Your task to perform on an android device: turn notification dots off Image 0: 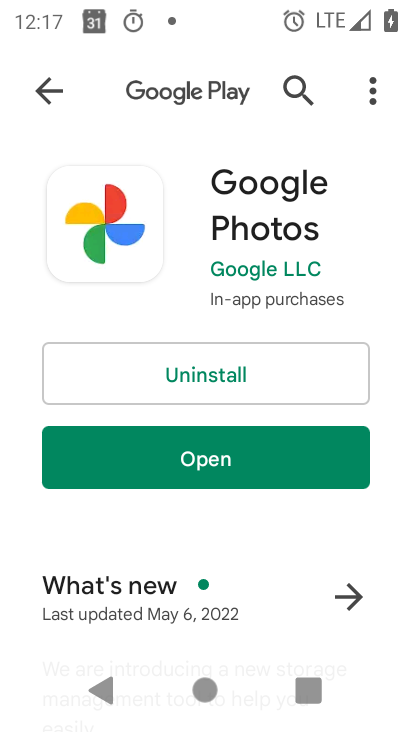
Step 0: press home button
Your task to perform on an android device: turn notification dots off Image 1: 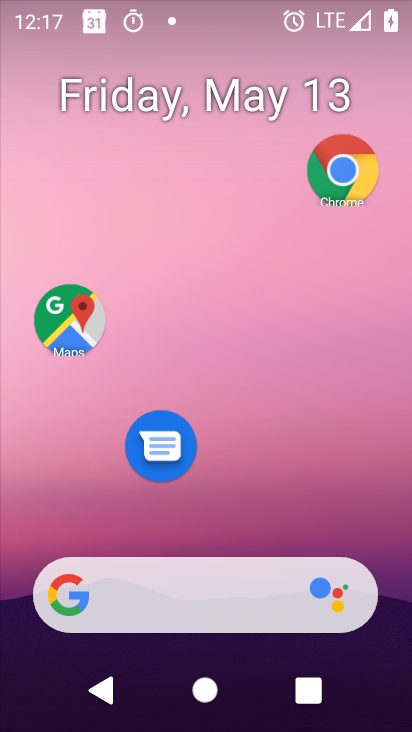
Step 1: drag from (236, 580) to (237, 5)
Your task to perform on an android device: turn notification dots off Image 2: 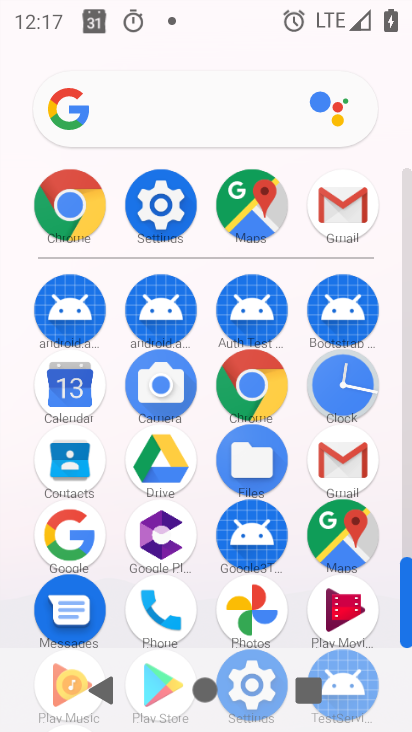
Step 2: click (129, 208)
Your task to perform on an android device: turn notification dots off Image 3: 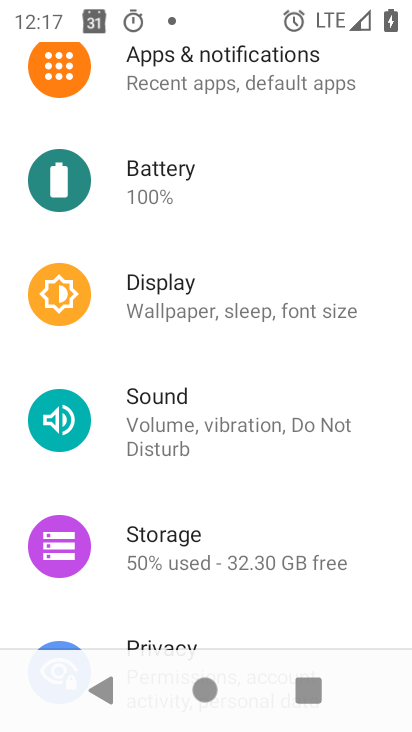
Step 3: drag from (255, 196) to (282, 473)
Your task to perform on an android device: turn notification dots off Image 4: 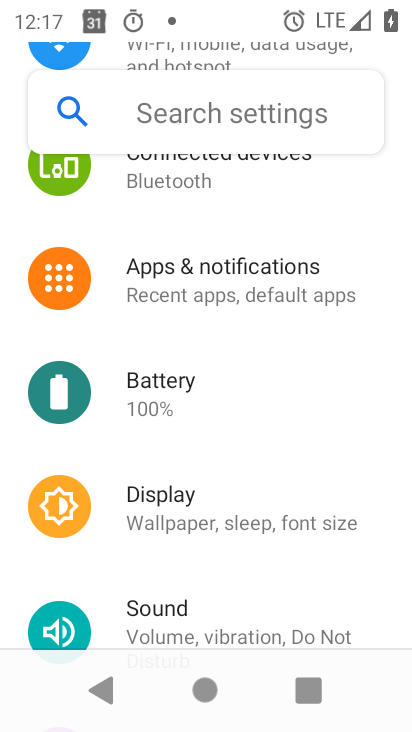
Step 4: click (251, 270)
Your task to perform on an android device: turn notification dots off Image 5: 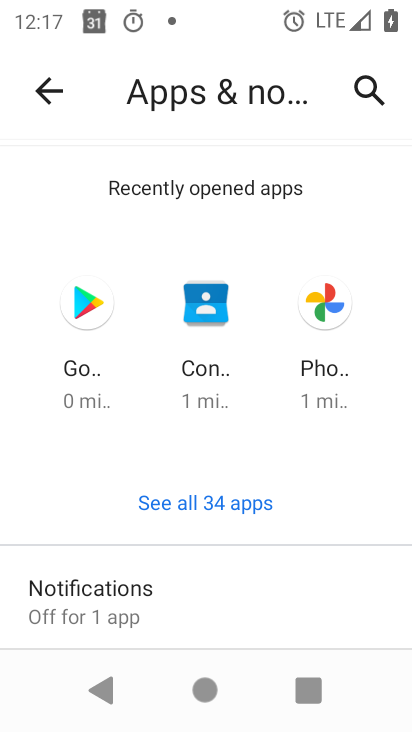
Step 5: drag from (189, 612) to (224, 104)
Your task to perform on an android device: turn notification dots off Image 6: 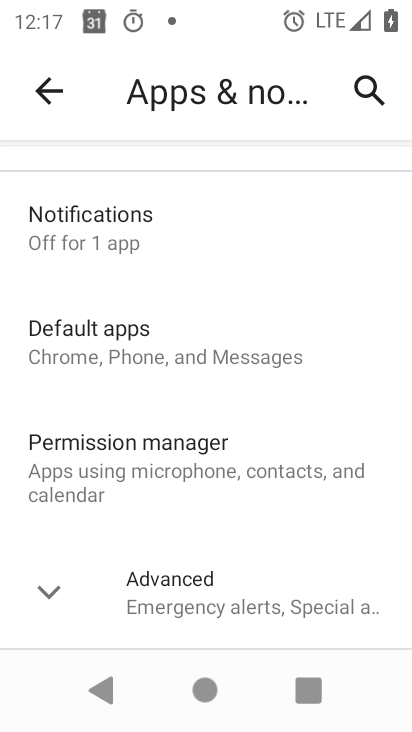
Step 6: click (209, 597)
Your task to perform on an android device: turn notification dots off Image 7: 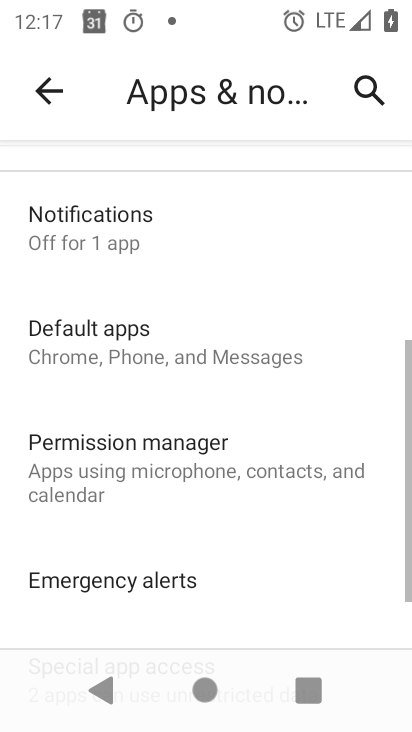
Step 7: drag from (208, 615) to (227, 249)
Your task to perform on an android device: turn notification dots off Image 8: 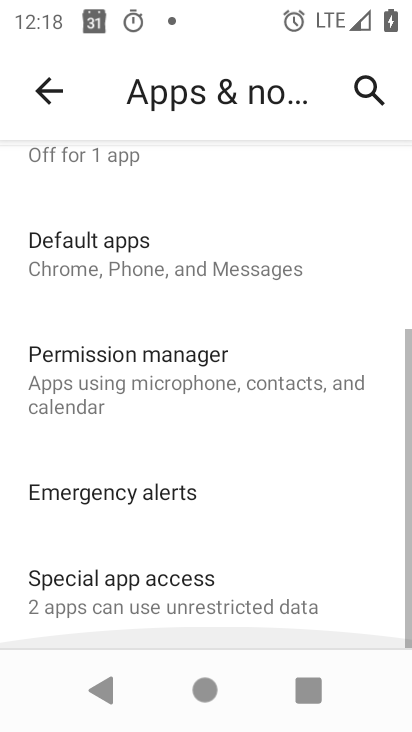
Step 8: drag from (173, 204) to (200, 641)
Your task to perform on an android device: turn notification dots off Image 9: 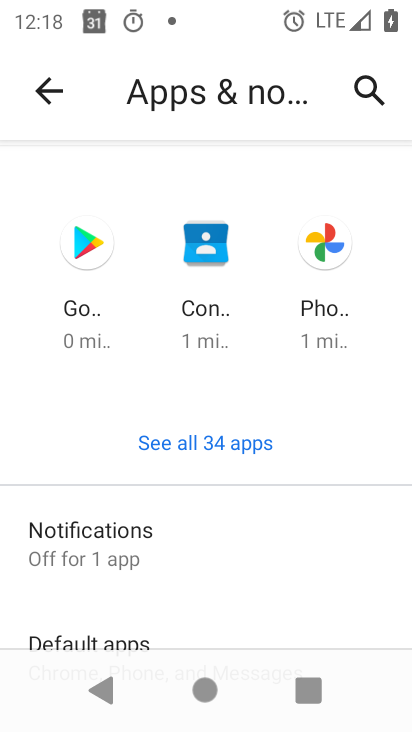
Step 9: click (111, 555)
Your task to perform on an android device: turn notification dots off Image 10: 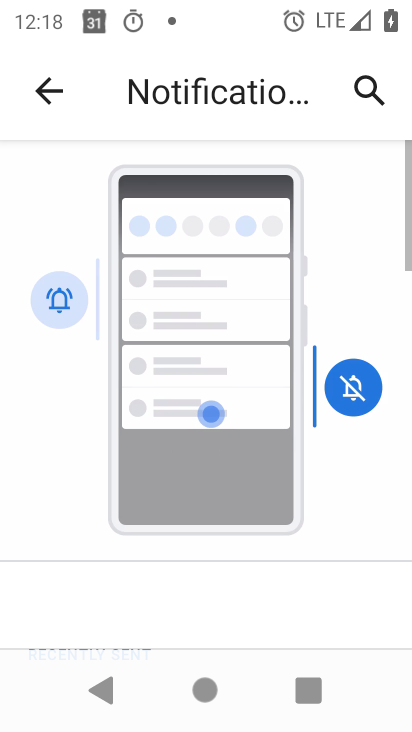
Step 10: drag from (203, 611) to (255, 129)
Your task to perform on an android device: turn notification dots off Image 11: 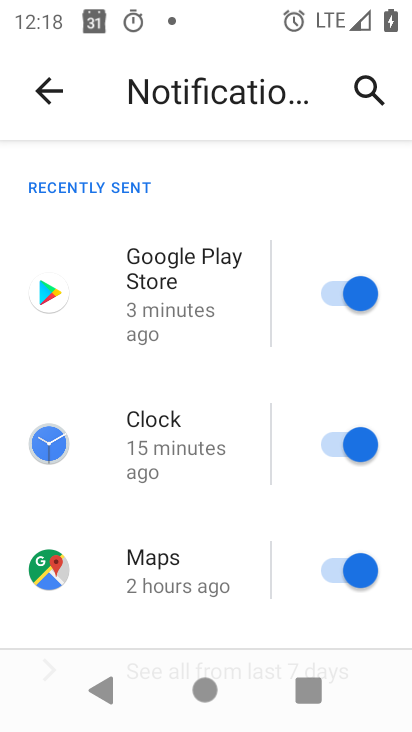
Step 11: drag from (184, 648) to (404, 577)
Your task to perform on an android device: turn notification dots off Image 12: 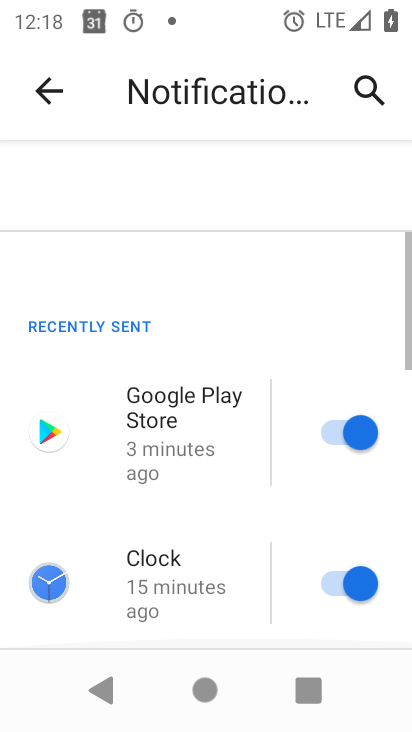
Step 12: click (294, 609)
Your task to perform on an android device: turn notification dots off Image 13: 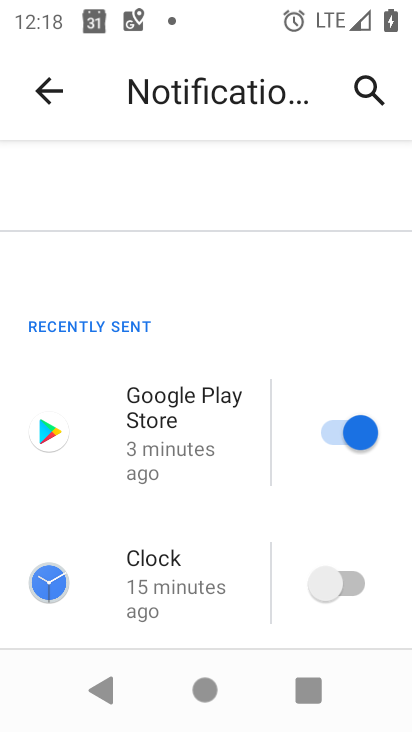
Step 13: click (362, 587)
Your task to perform on an android device: turn notification dots off Image 14: 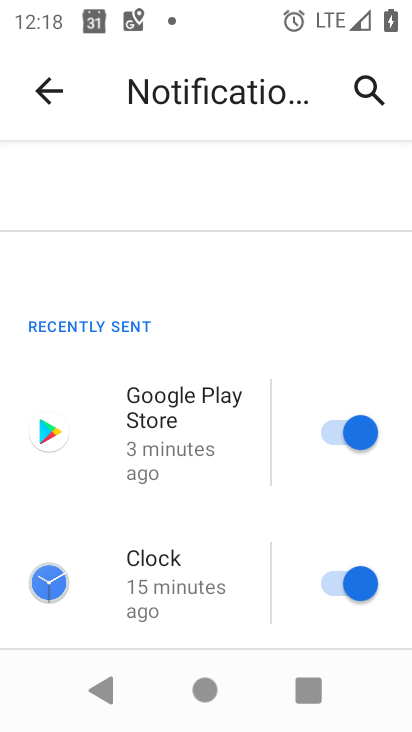
Step 14: drag from (224, 617) to (261, 48)
Your task to perform on an android device: turn notification dots off Image 15: 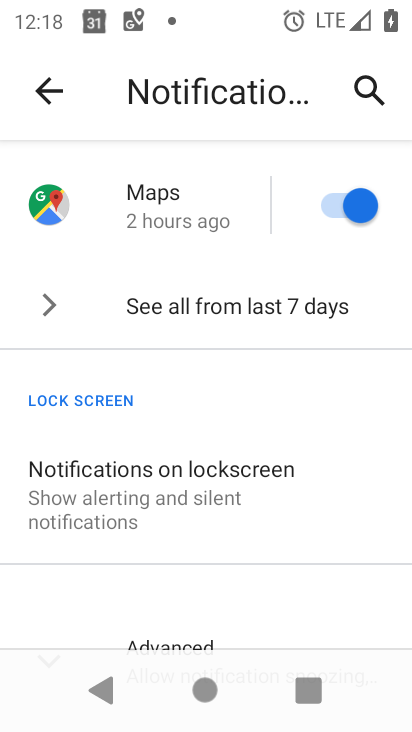
Step 15: drag from (241, 618) to (227, 183)
Your task to perform on an android device: turn notification dots off Image 16: 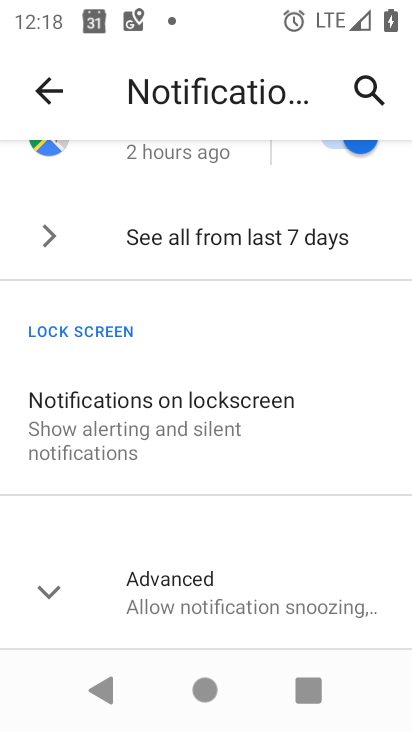
Step 16: click (267, 593)
Your task to perform on an android device: turn notification dots off Image 17: 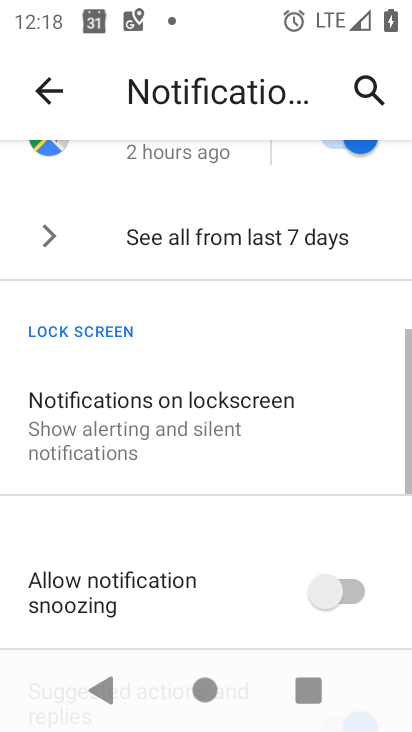
Step 17: task complete